Your task to perform on an android device: Clear the cart on bestbuy. Search for "energizer triple a" on bestbuy, select the first entry, and add it to the cart. Image 0: 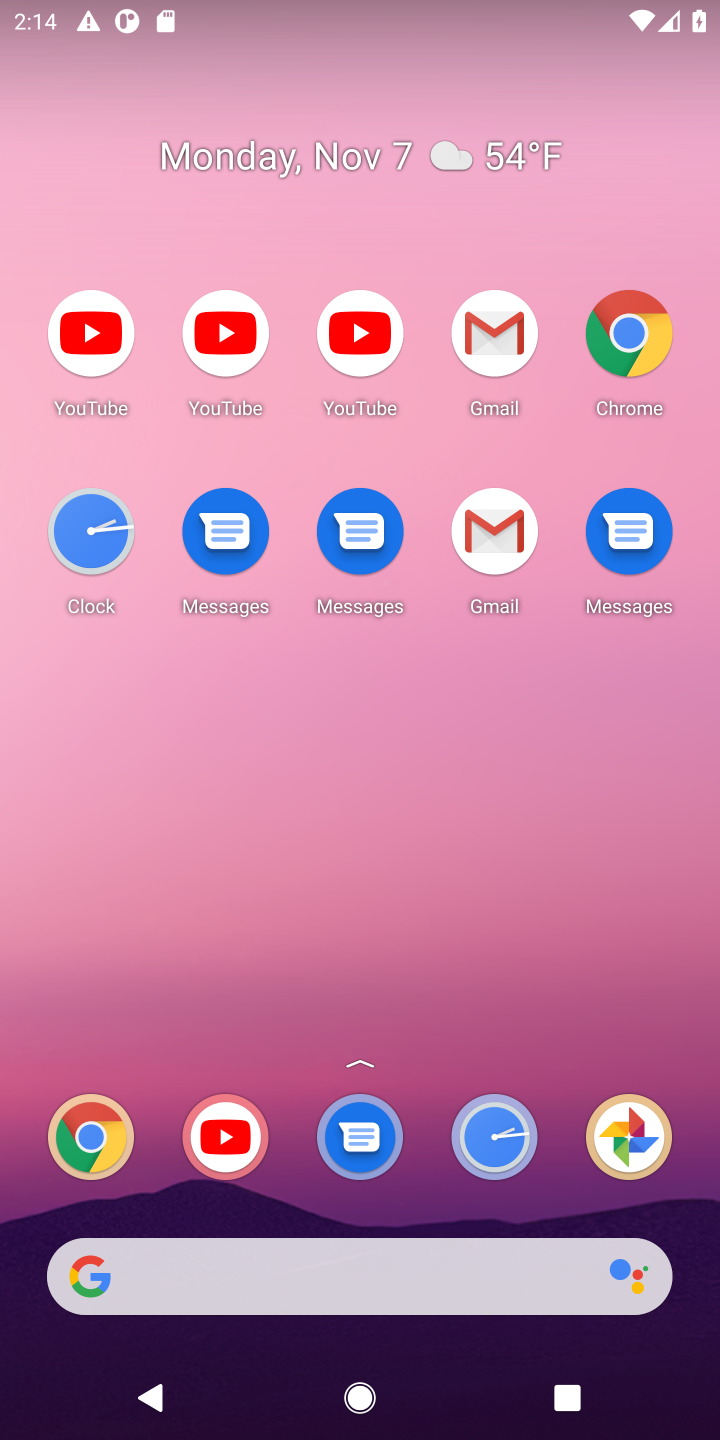
Step 0: drag from (439, 1210) to (471, 175)
Your task to perform on an android device: Clear the cart on bestbuy. Search for "energizer triple a" on bestbuy, select the first entry, and add it to the cart. Image 1: 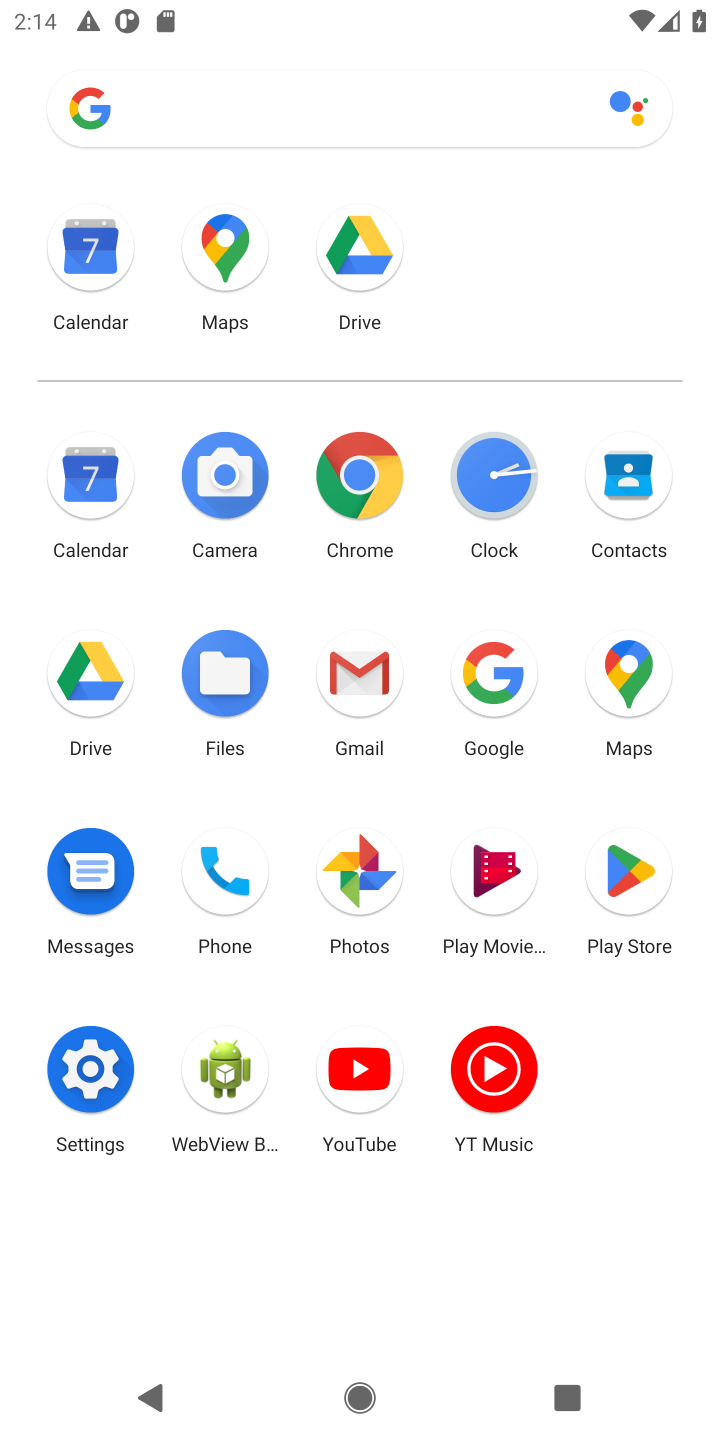
Step 1: click (360, 467)
Your task to perform on an android device: Clear the cart on bestbuy. Search for "energizer triple a" on bestbuy, select the first entry, and add it to the cart. Image 2: 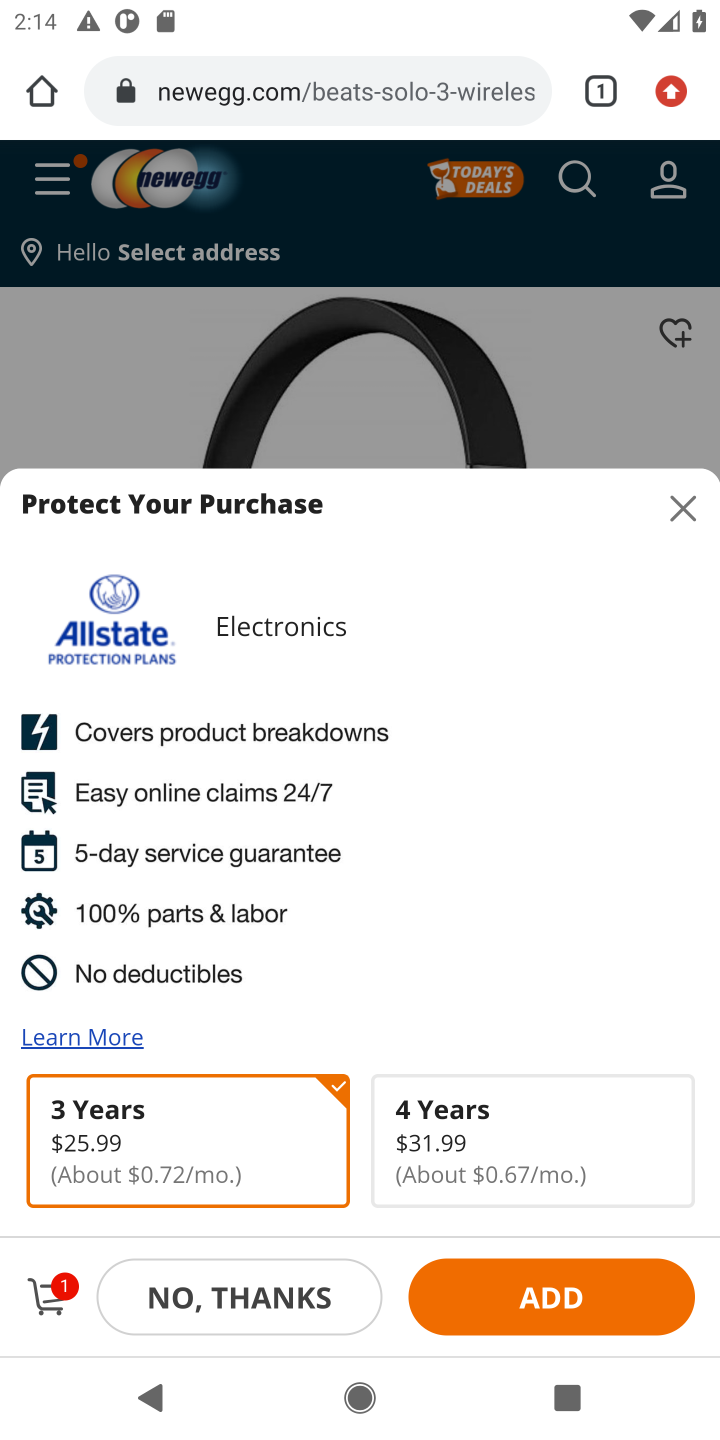
Step 2: click (333, 93)
Your task to perform on an android device: Clear the cart on bestbuy. Search for "energizer triple a" on bestbuy, select the first entry, and add it to the cart. Image 3: 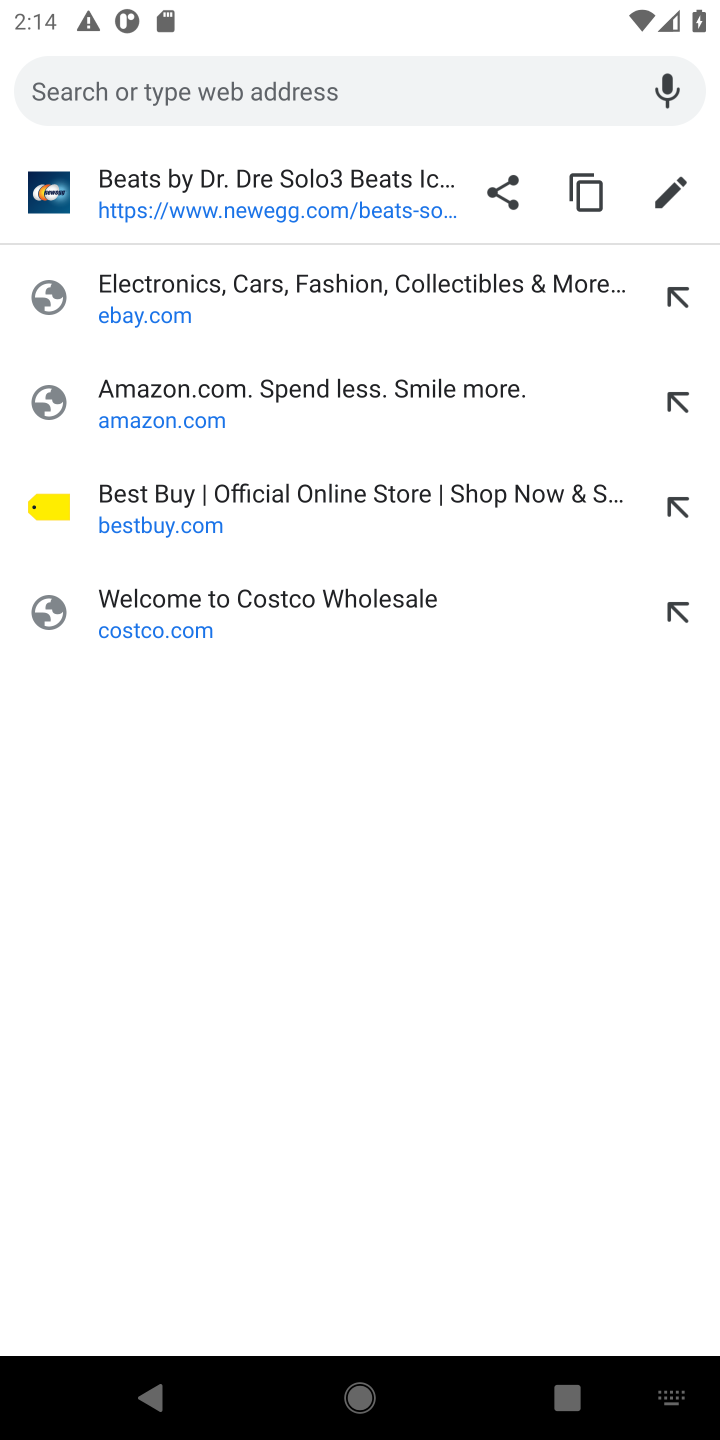
Step 3: type "bestbuy.com"
Your task to perform on an android device: Clear the cart on bestbuy. Search for "energizer triple a" on bestbuy, select the first entry, and add it to the cart. Image 4: 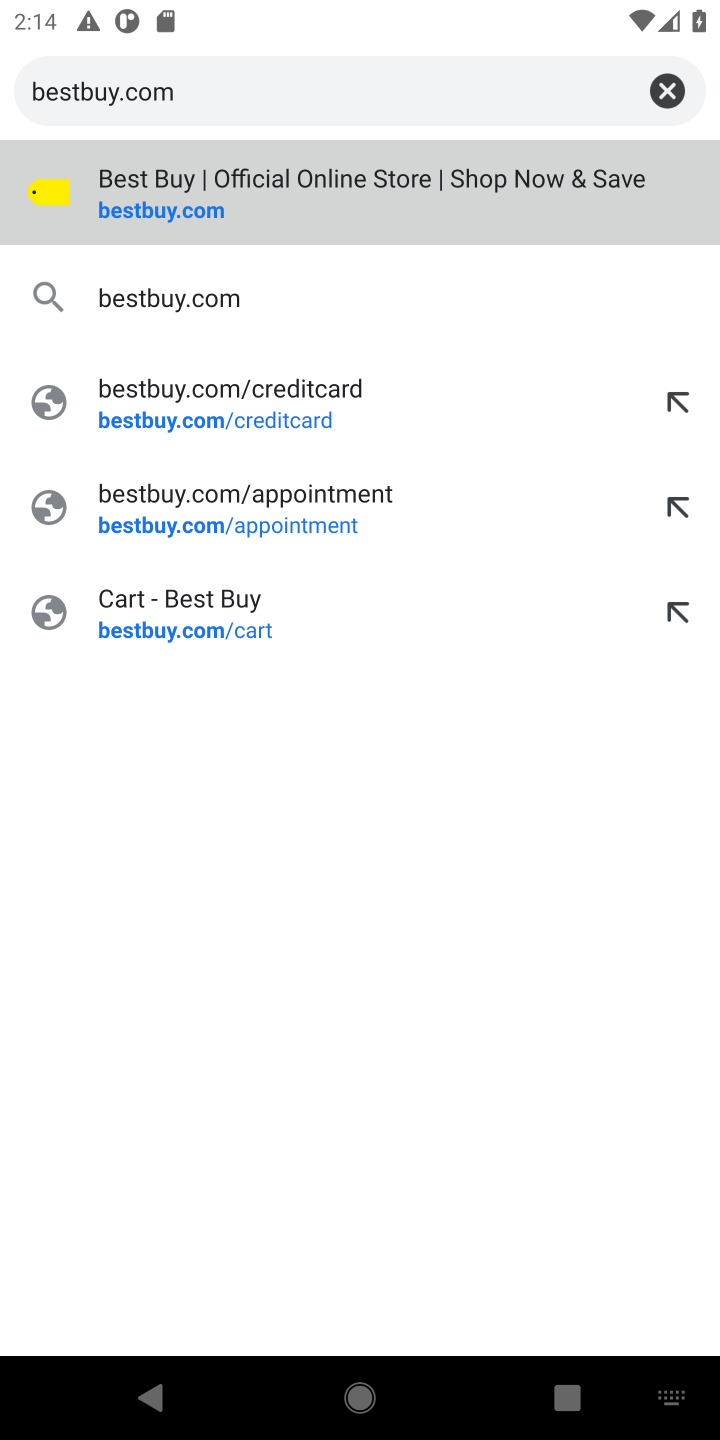
Step 4: press enter
Your task to perform on an android device: Clear the cart on bestbuy. Search for "energizer triple a" on bestbuy, select the first entry, and add it to the cart. Image 5: 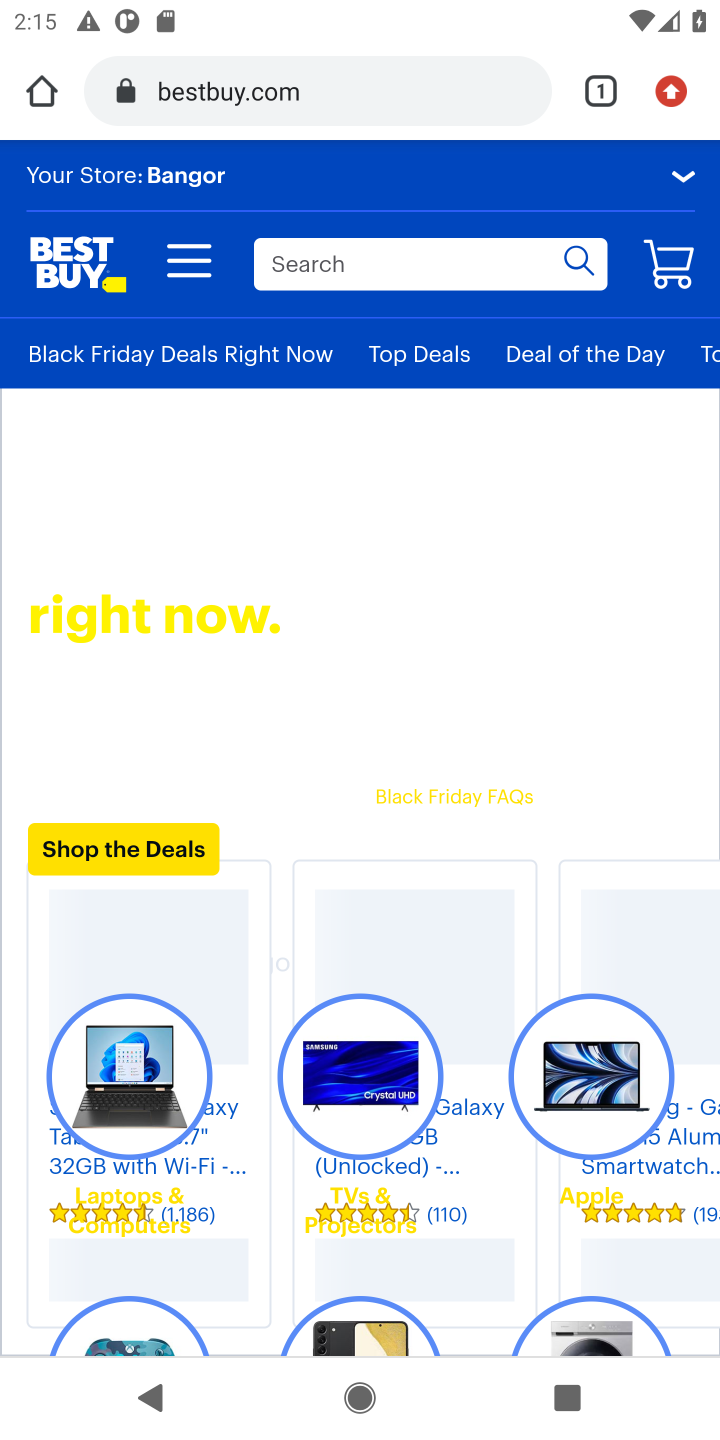
Step 5: click (675, 255)
Your task to perform on an android device: Clear the cart on bestbuy. Search for "energizer triple a" on bestbuy, select the first entry, and add it to the cart. Image 6: 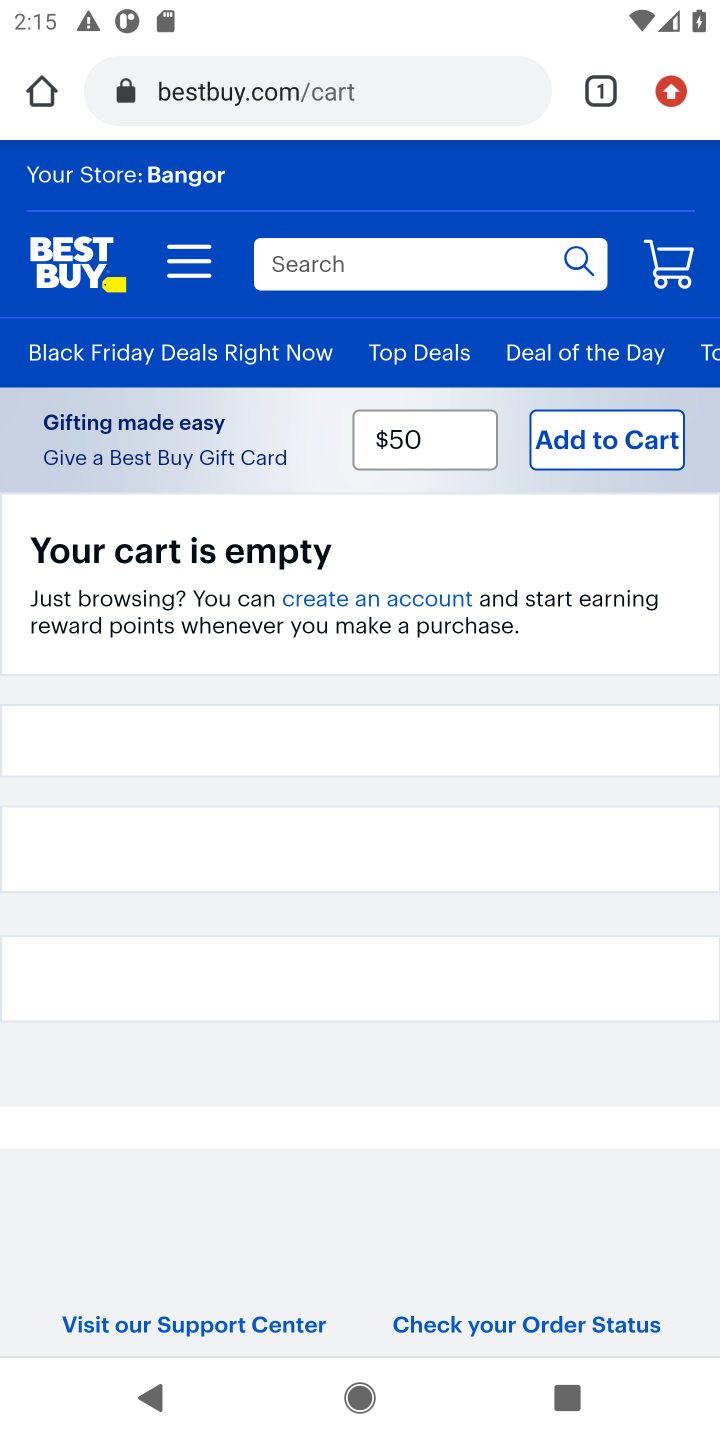
Step 6: click (350, 259)
Your task to perform on an android device: Clear the cart on bestbuy. Search for "energizer triple a" on bestbuy, select the first entry, and add it to the cart. Image 7: 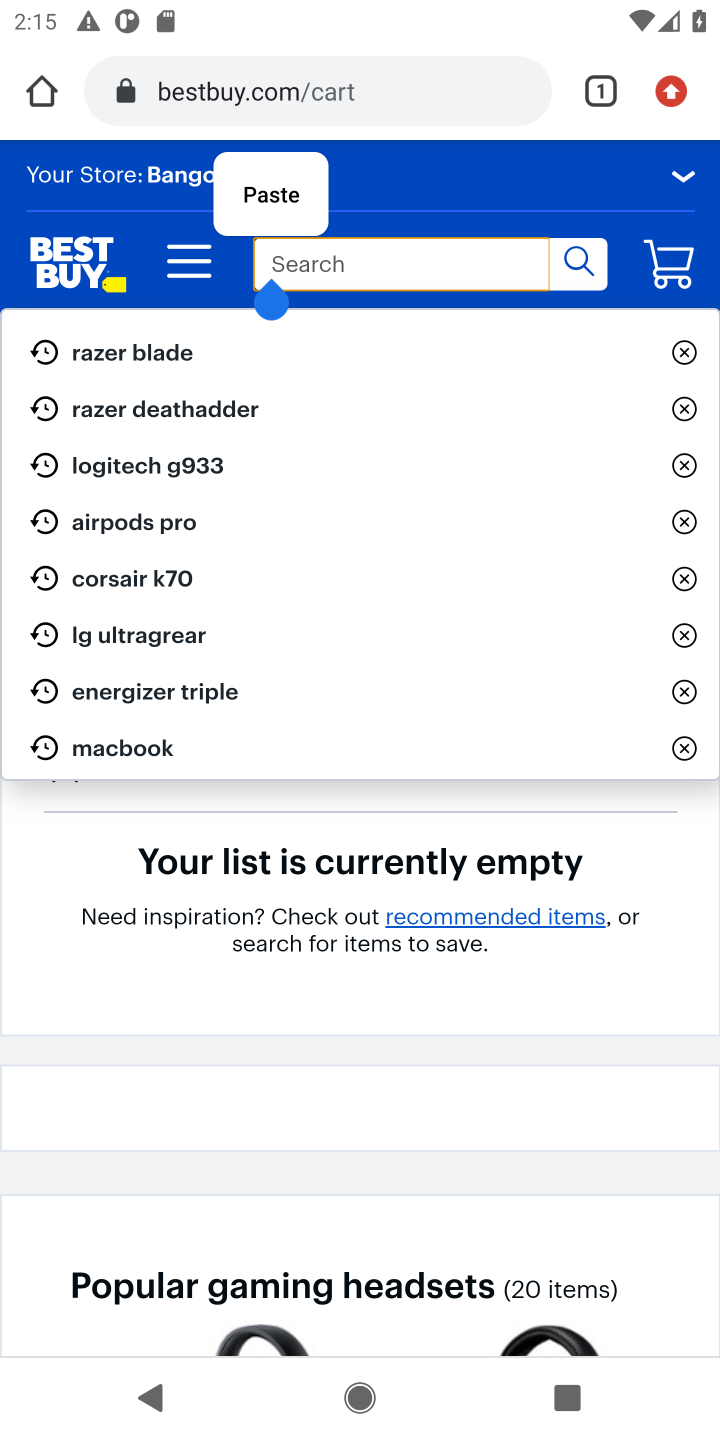
Step 7: type "energizer triple a"
Your task to perform on an android device: Clear the cart on bestbuy. Search for "energizer triple a" on bestbuy, select the first entry, and add it to the cart. Image 8: 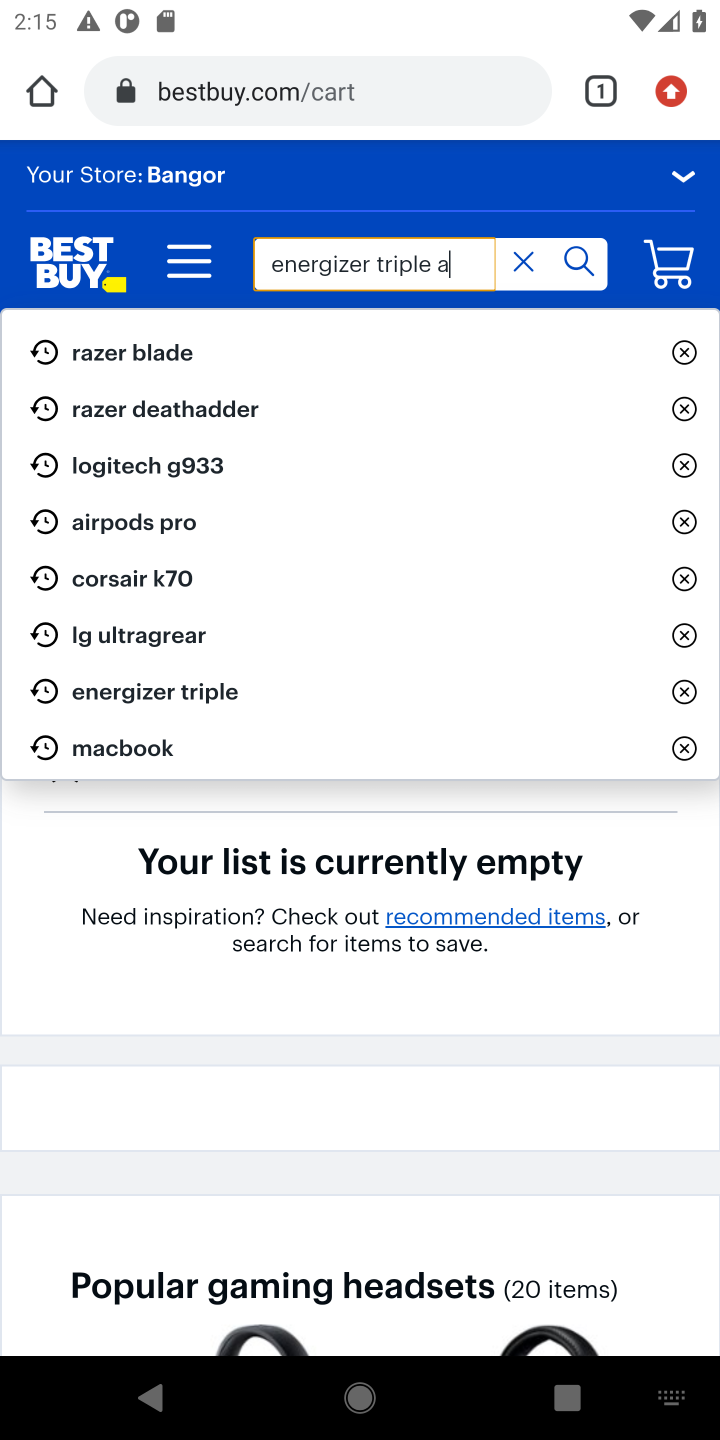
Step 8: press enter
Your task to perform on an android device: Clear the cart on bestbuy. Search for "energizer triple a" on bestbuy, select the first entry, and add it to the cart. Image 9: 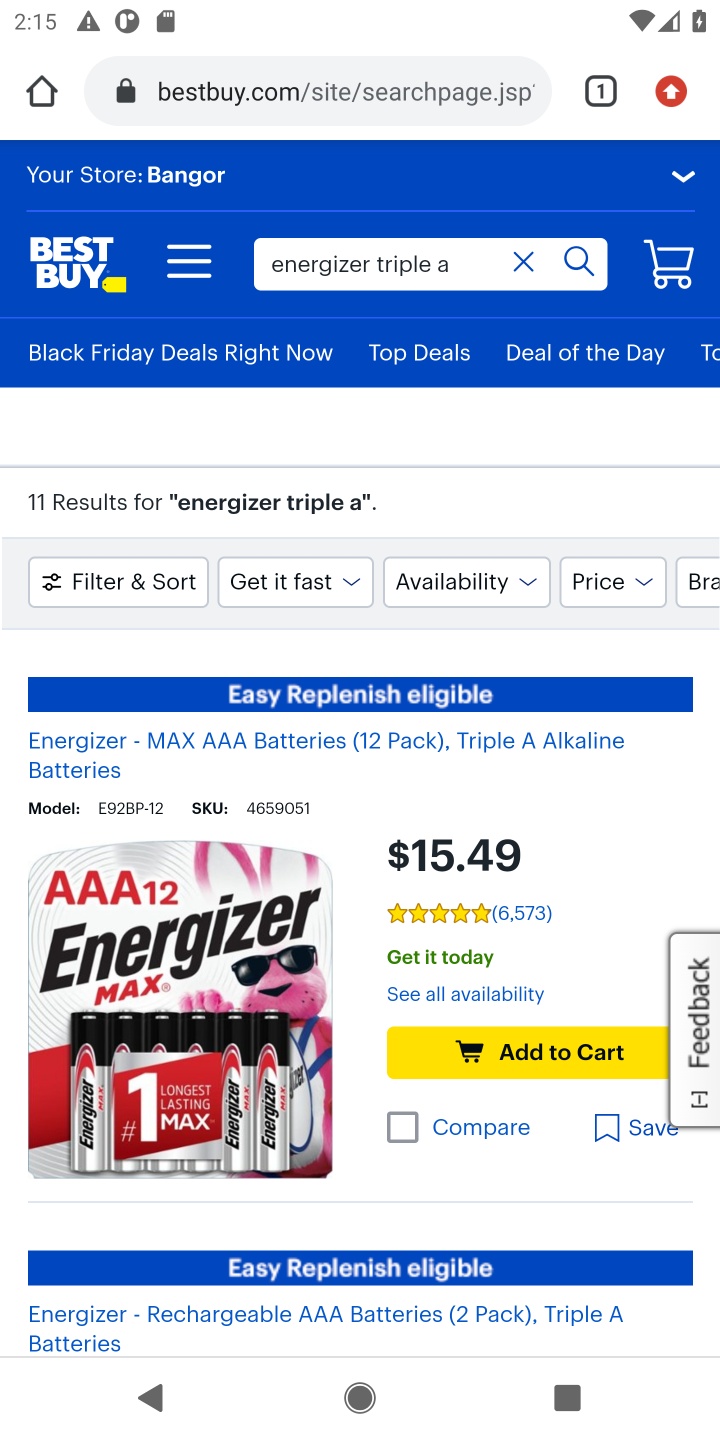
Step 9: click (535, 1046)
Your task to perform on an android device: Clear the cart on bestbuy. Search for "energizer triple a" on bestbuy, select the first entry, and add it to the cart. Image 10: 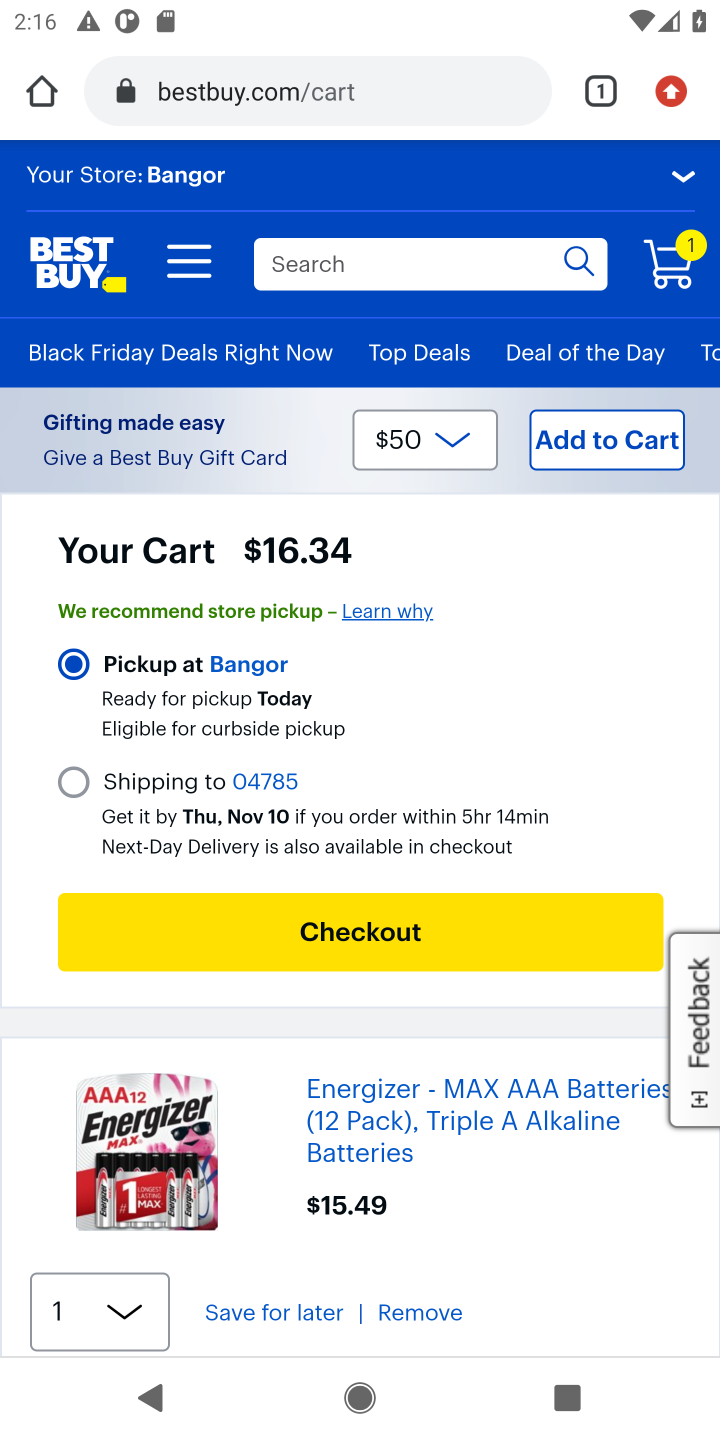
Step 10: task complete